Your task to perform on an android device: How big is the sun? Image 0: 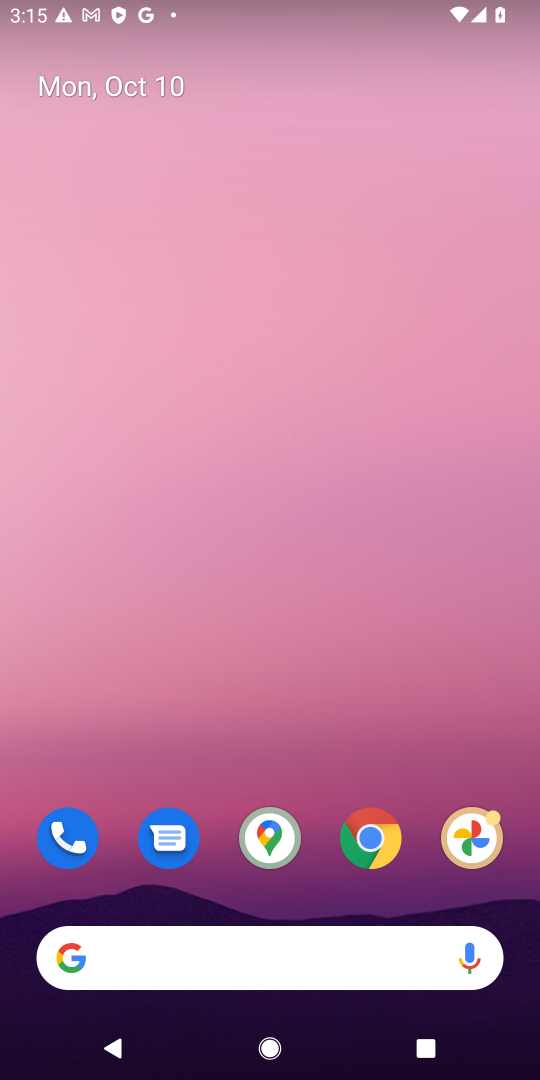
Step 0: click (378, 852)
Your task to perform on an android device: How big is the sun? Image 1: 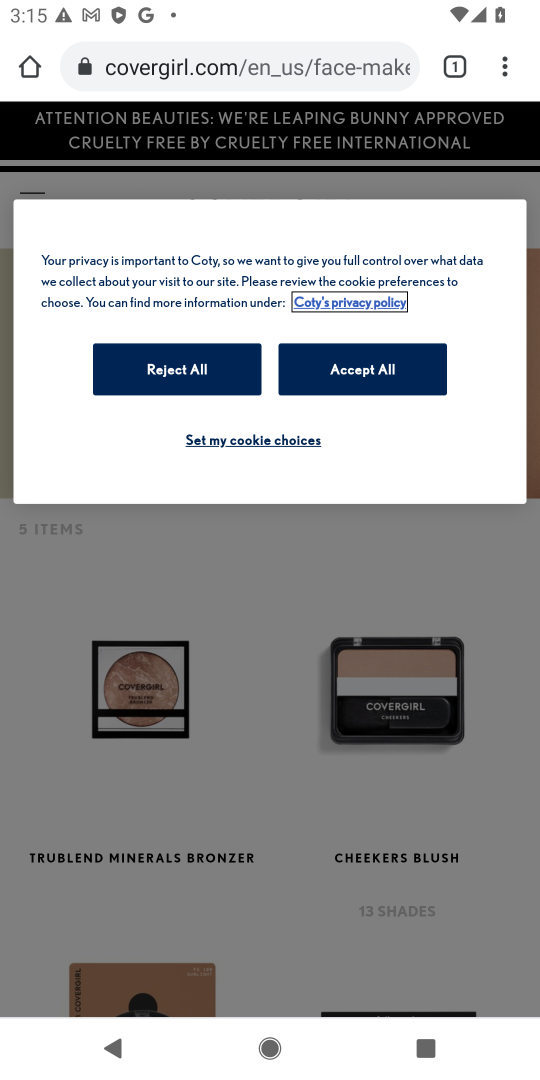
Step 1: click (154, 55)
Your task to perform on an android device: How big is the sun? Image 2: 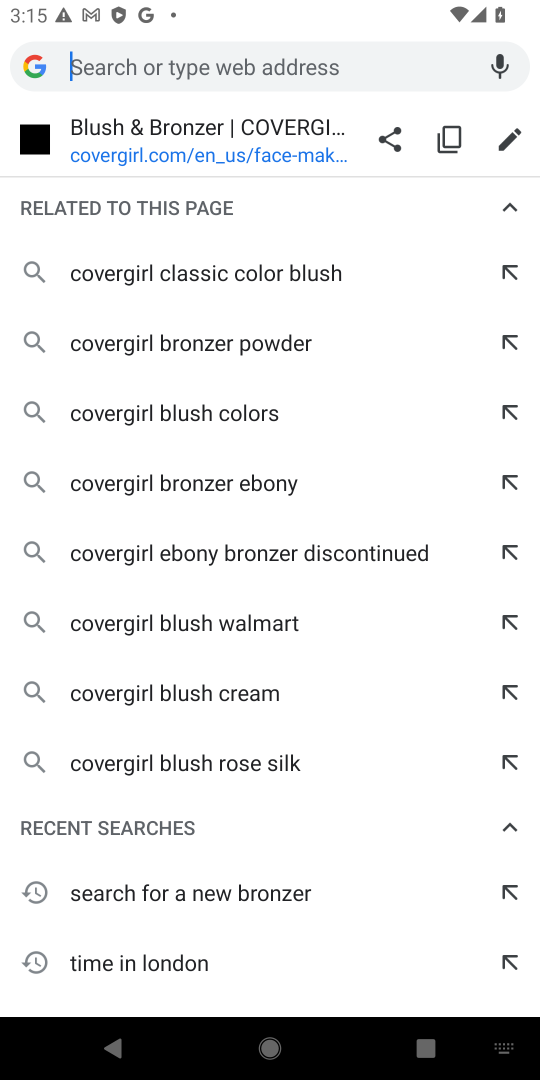
Step 2: type "How big is the sun?"
Your task to perform on an android device: How big is the sun? Image 3: 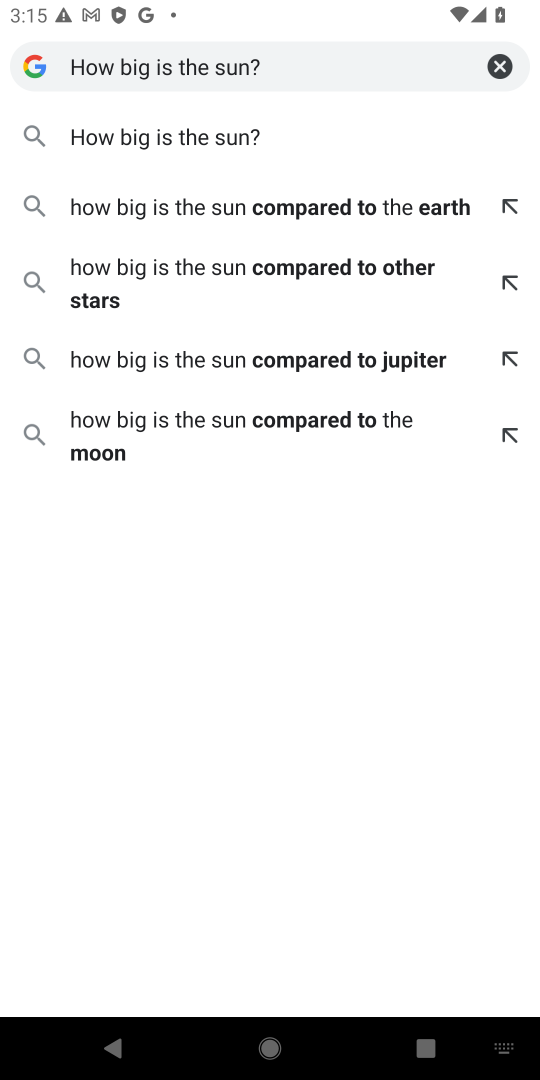
Step 3: click (225, 139)
Your task to perform on an android device: How big is the sun? Image 4: 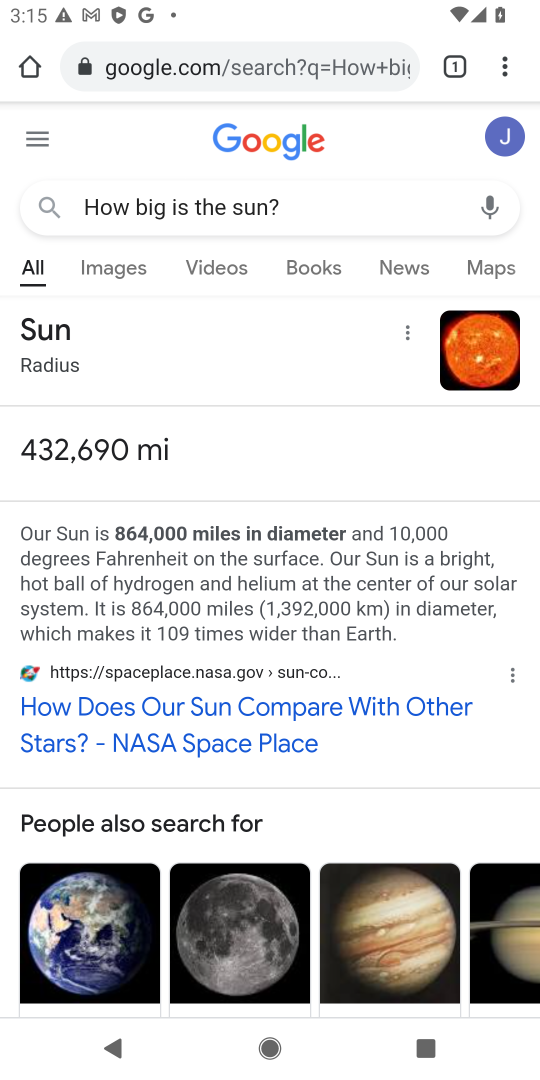
Step 4: task complete